Your task to perform on an android device: Open the Play Movies app and select the watchlist tab. Image 0: 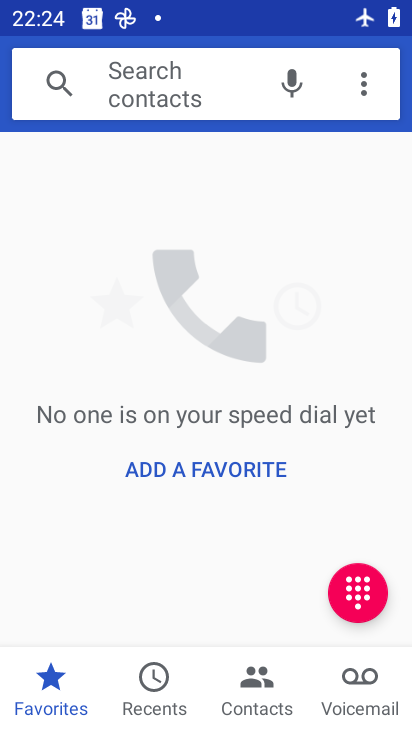
Step 0: press home button
Your task to perform on an android device: Open the Play Movies app and select the watchlist tab. Image 1: 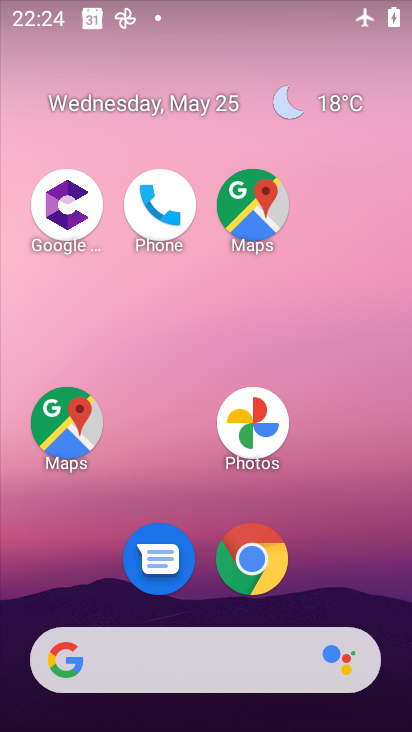
Step 1: drag from (331, 596) to (340, 91)
Your task to perform on an android device: Open the Play Movies app and select the watchlist tab. Image 2: 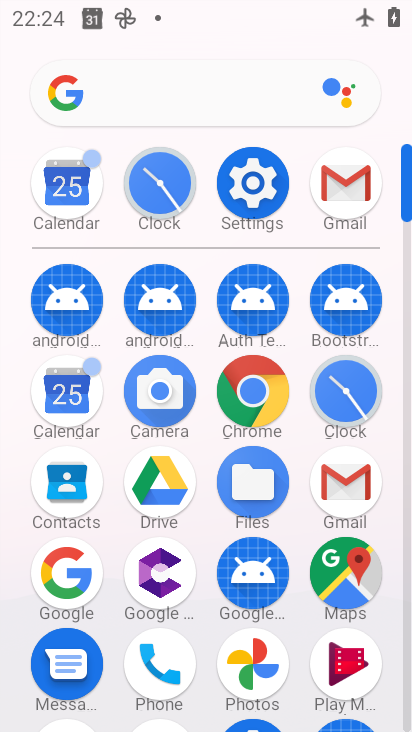
Step 2: click (338, 659)
Your task to perform on an android device: Open the Play Movies app and select the watchlist tab. Image 3: 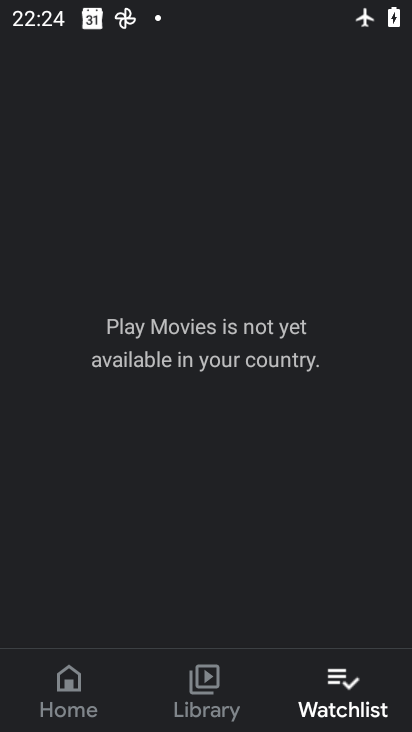
Step 3: task complete